Your task to perform on an android device: Go to CNN.com Image 0: 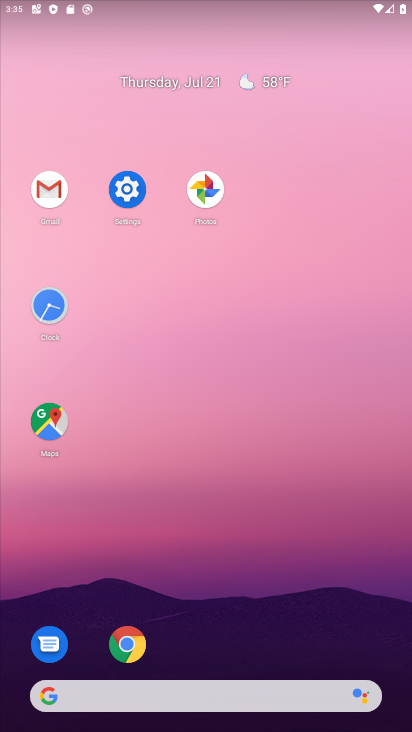
Step 0: click (129, 643)
Your task to perform on an android device: Go to CNN.com Image 1: 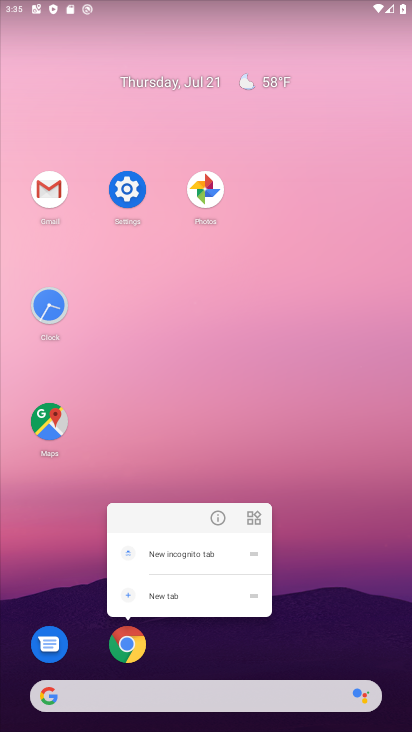
Step 1: click (121, 650)
Your task to perform on an android device: Go to CNN.com Image 2: 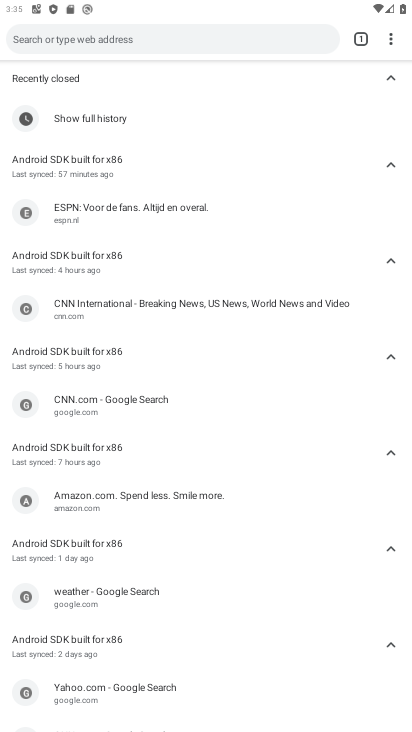
Step 2: click (359, 43)
Your task to perform on an android device: Go to CNN.com Image 3: 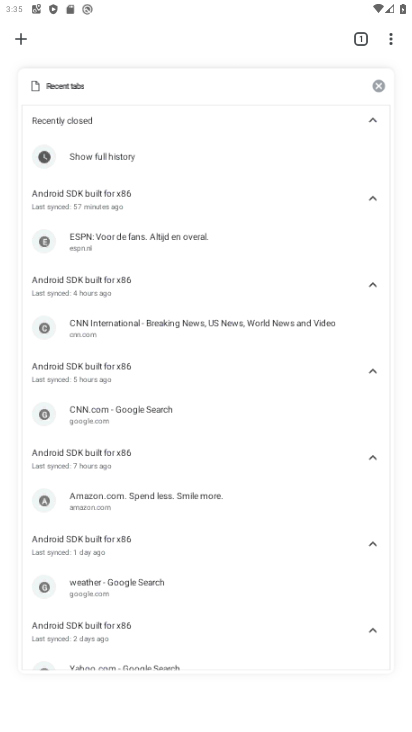
Step 3: click (22, 47)
Your task to perform on an android device: Go to CNN.com Image 4: 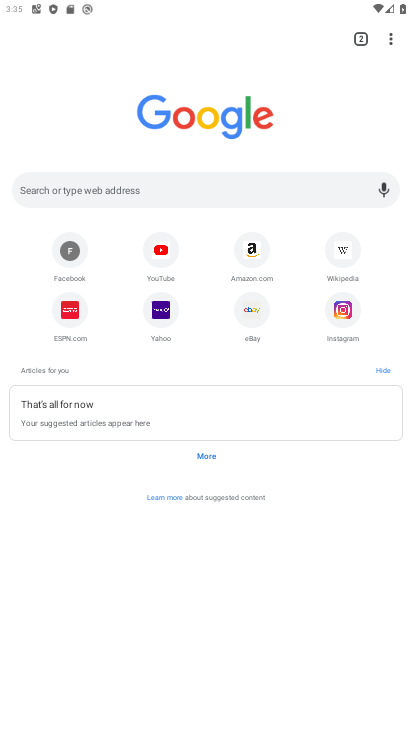
Step 4: click (137, 175)
Your task to perform on an android device: Go to CNN.com Image 5: 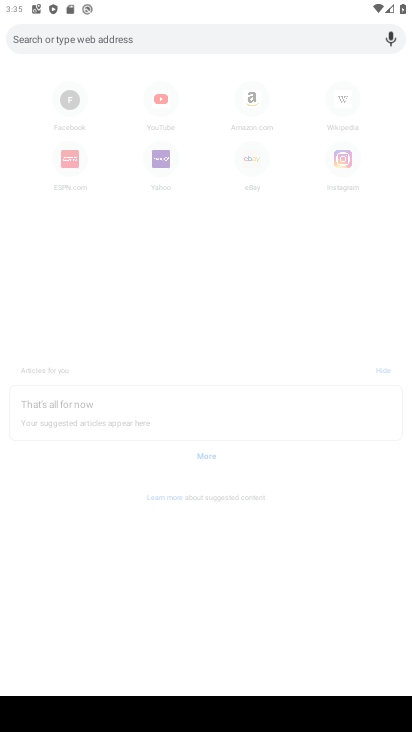
Step 5: type "cnn"
Your task to perform on an android device: Go to CNN.com Image 6: 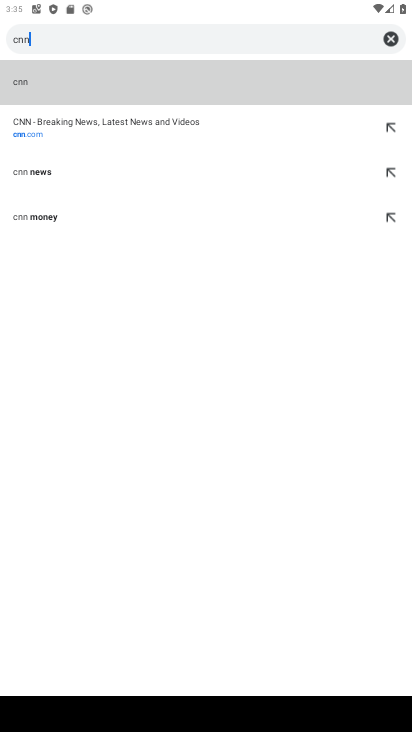
Step 6: click (97, 82)
Your task to perform on an android device: Go to CNN.com Image 7: 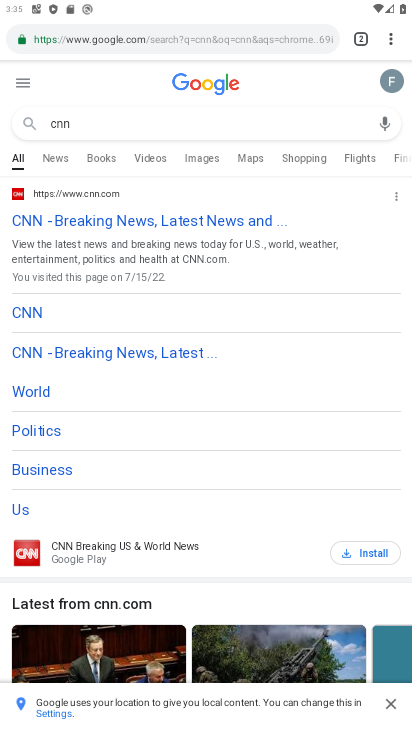
Step 7: click (133, 215)
Your task to perform on an android device: Go to CNN.com Image 8: 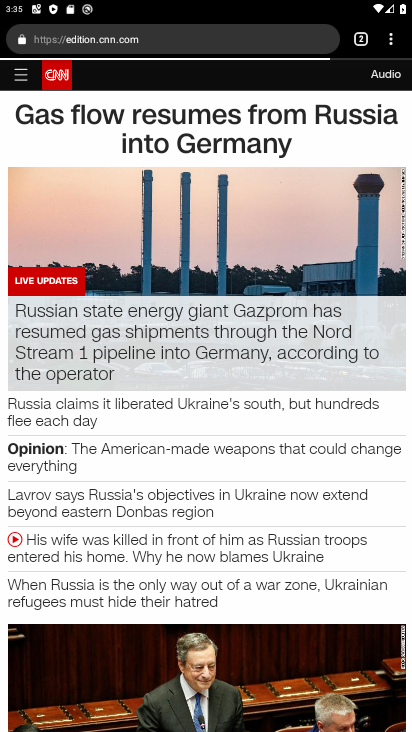
Step 8: task complete